Your task to perform on an android device: open the mobile data screen to see how much data has been used Image 0: 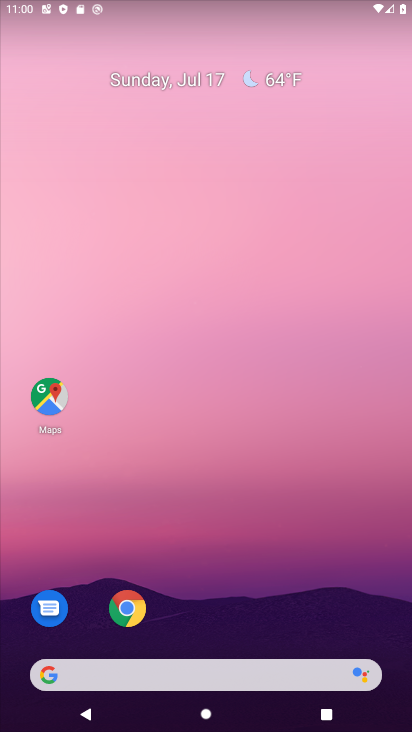
Step 0: drag from (379, 644) to (161, 67)
Your task to perform on an android device: open the mobile data screen to see how much data has been used Image 1: 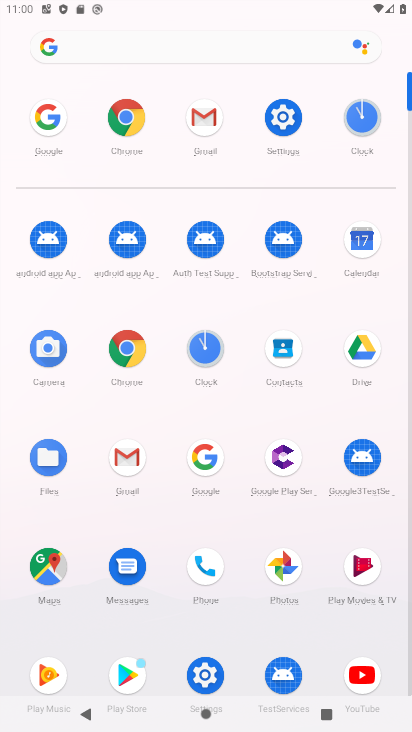
Step 1: click (272, 130)
Your task to perform on an android device: open the mobile data screen to see how much data has been used Image 2: 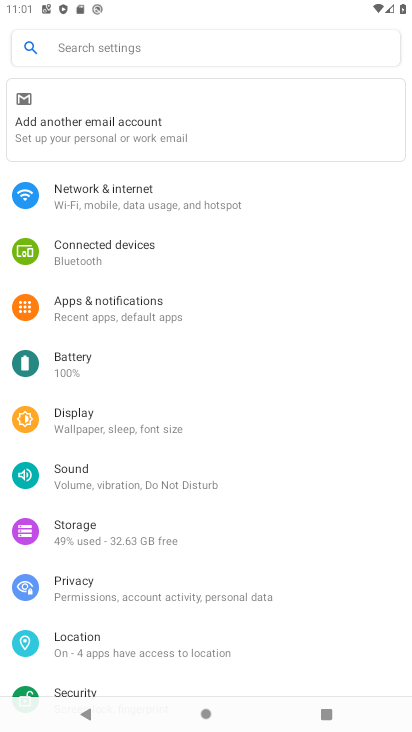
Step 2: click (156, 203)
Your task to perform on an android device: open the mobile data screen to see how much data has been used Image 3: 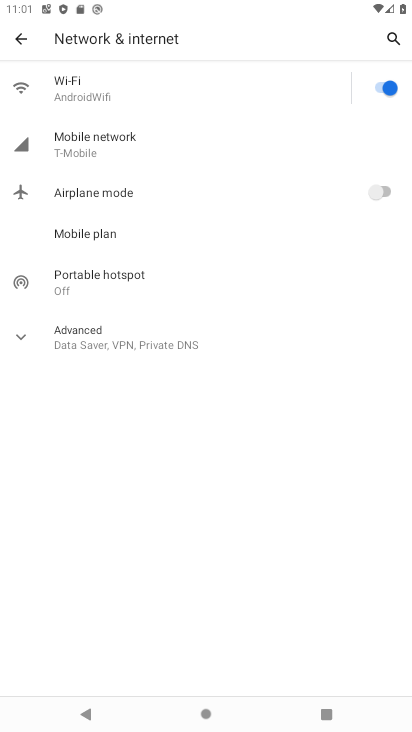
Step 3: click (100, 157)
Your task to perform on an android device: open the mobile data screen to see how much data has been used Image 4: 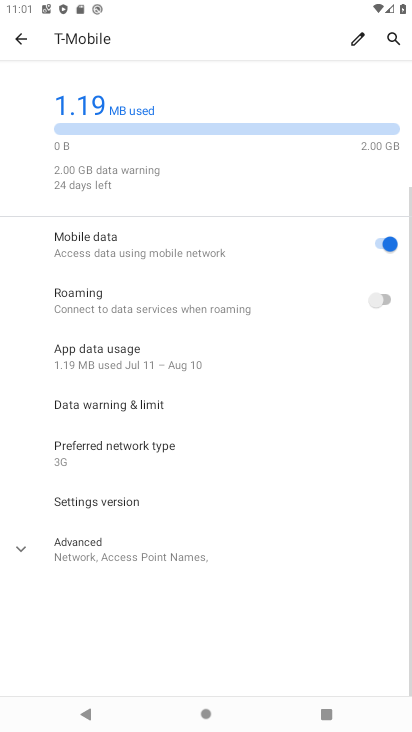
Step 4: click (149, 355)
Your task to perform on an android device: open the mobile data screen to see how much data has been used Image 5: 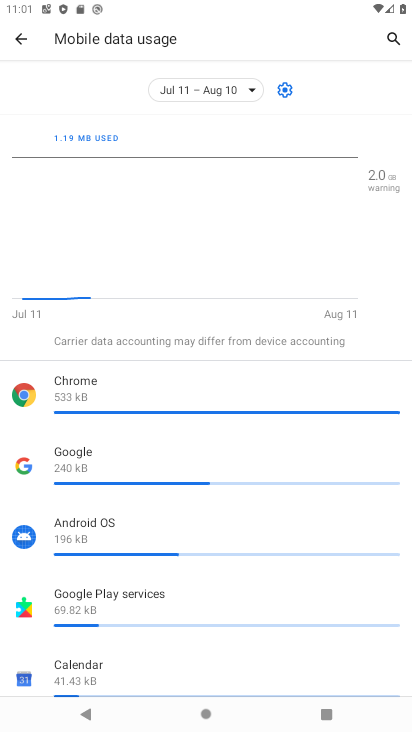
Step 5: task complete